Your task to perform on an android device: make emails show in primary in the gmail app Image 0: 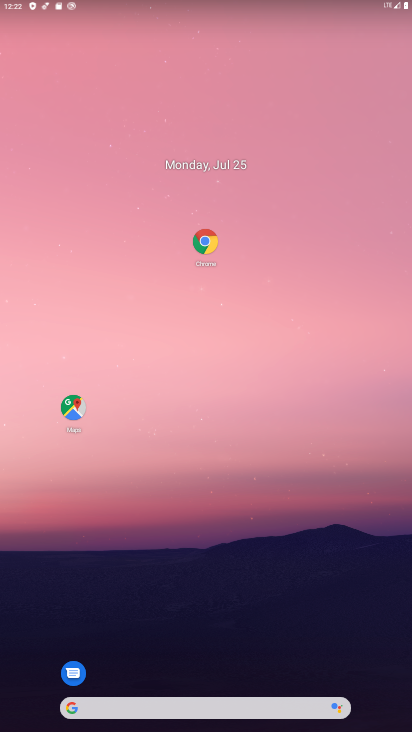
Step 0: drag from (282, 700) to (376, 0)
Your task to perform on an android device: make emails show in primary in the gmail app Image 1: 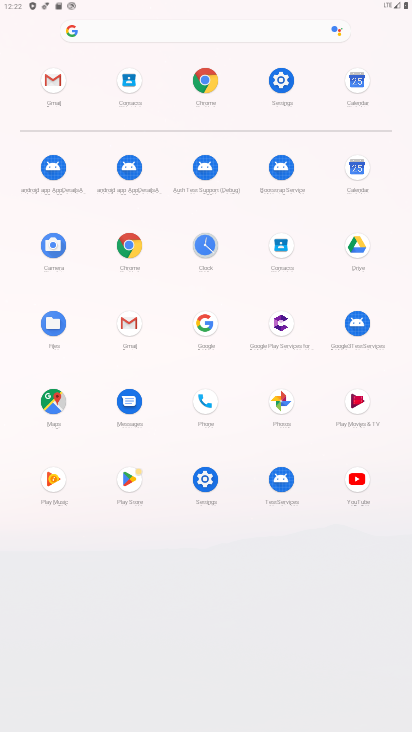
Step 1: click (122, 328)
Your task to perform on an android device: make emails show in primary in the gmail app Image 2: 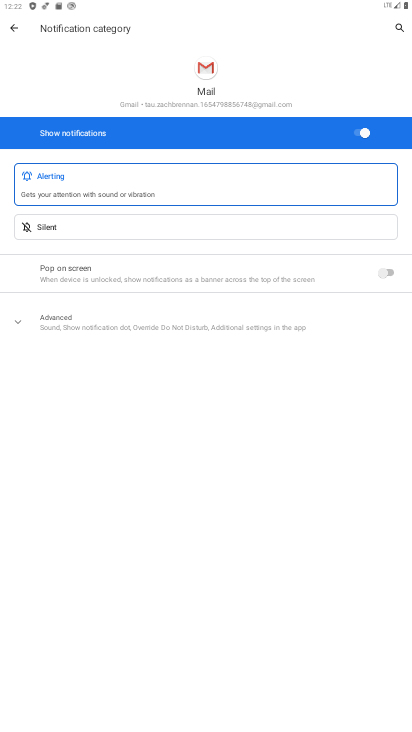
Step 2: press back button
Your task to perform on an android device: make emails show in primary in the gmail app Image 3: 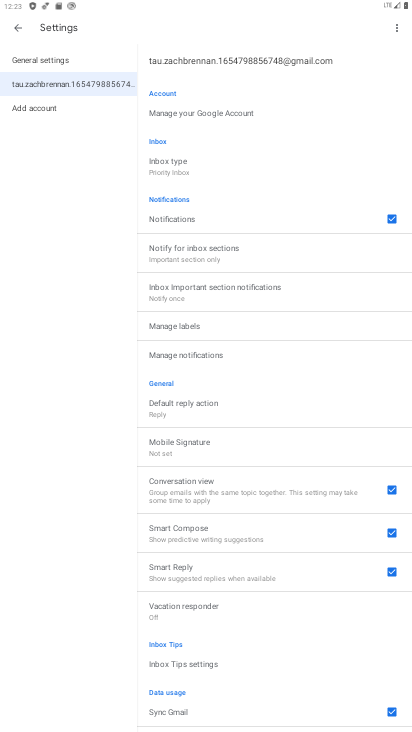
Step 3: click (186, 162)
Your task to perform on an android device: make emails show in primary in the gmail app Image 4: 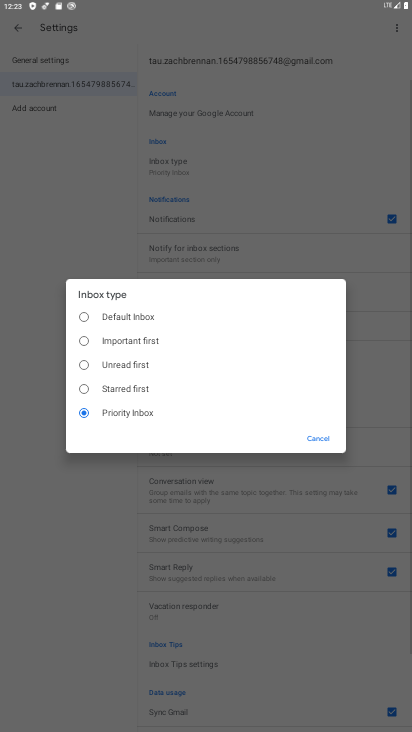
Step 4: click (81, 314)
Your task to perform on an android device: make emails show in primary in the gmail app Image 5: 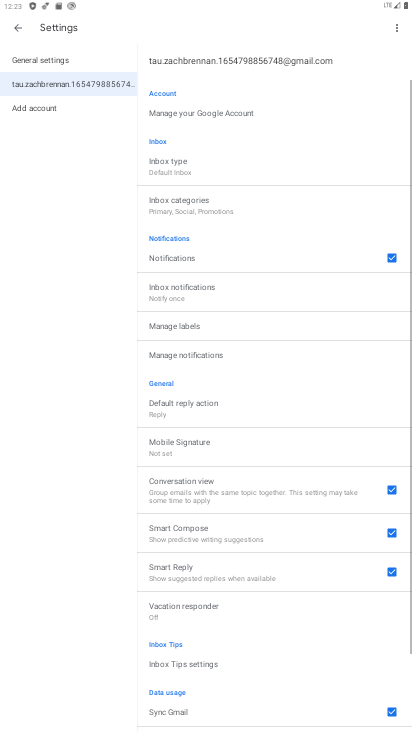
Step 5: task complete